Your task to perform on an android device: Open Google Image 0: 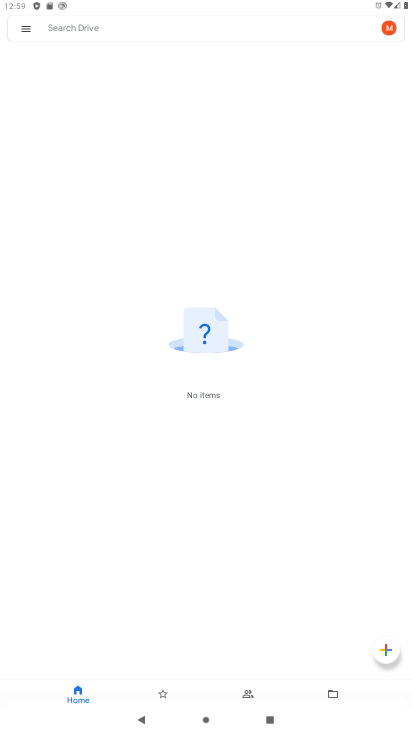
Step 0: press home button
Your task to perform on an android device: Open Google Image 1: 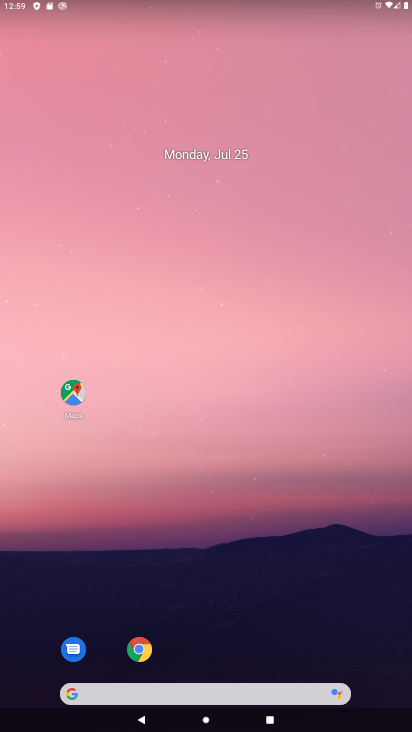
Step 1: drag from (223, 321) to (222, 178)
Your task to perform on an android device: Open Google Image 2: 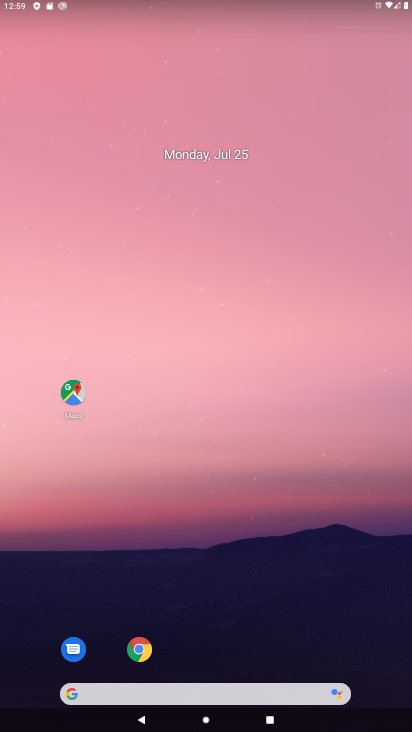
Step 2: drag from (239, 613) to (217, 38)
Your task to perform on an android device: Open Google Image 3: 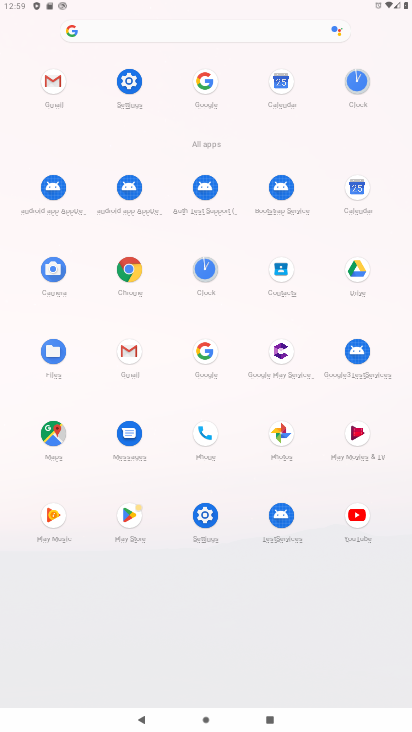
Step 3: click (201, 83)
Your task to perform on an android device: Open Google Image 4: 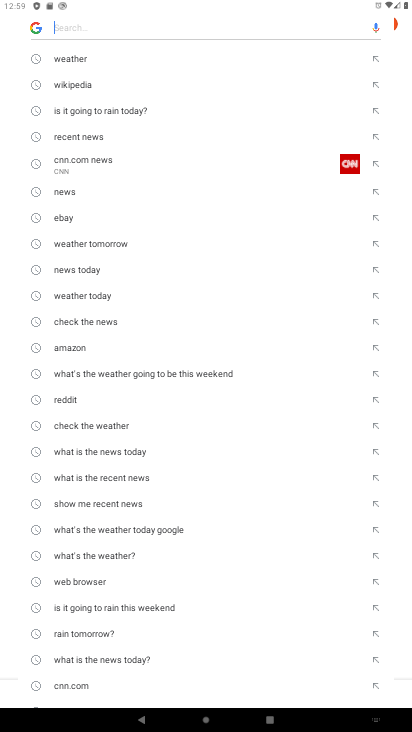
Step 4: click (40, 23)
Your task to perform on an android device: Open Google Image 5: 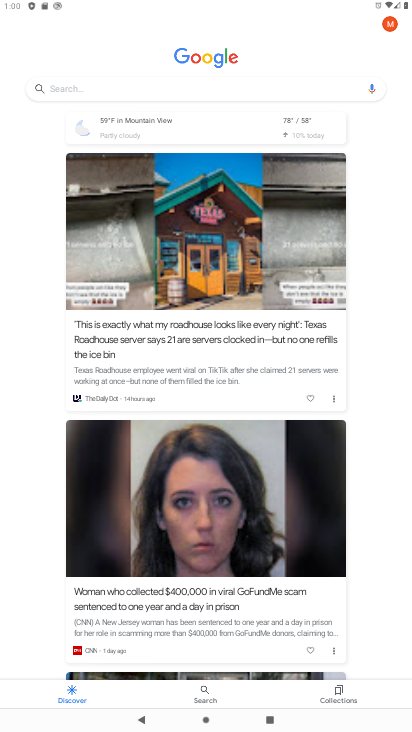
Step 5: task complete